Your task to perform on an android device: Open battery settings Image 0: 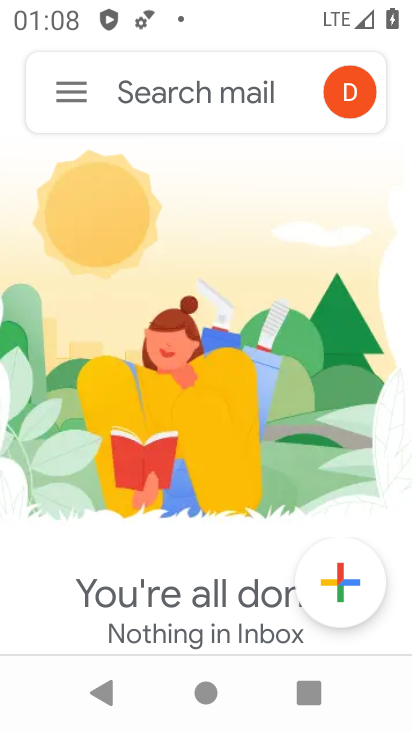
Step 0: press home button
Your task to perform on an android device: Open battery settings Image 1: 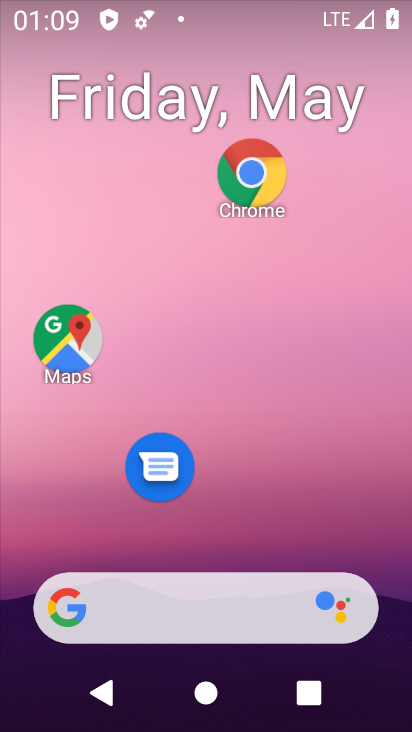
Step 1: drag from (216, 651) to (256, 274)
Your task to perform on an android device: Open battery settings Image 2: 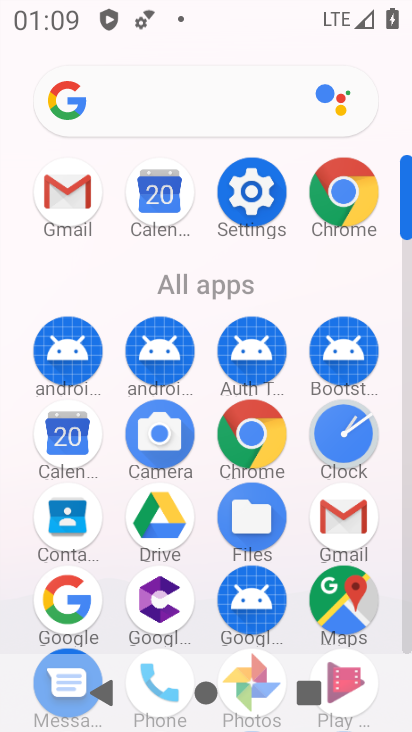
Step 2: click (266, 191)
Your task to perform on an android device: Open battery settings Image 3: 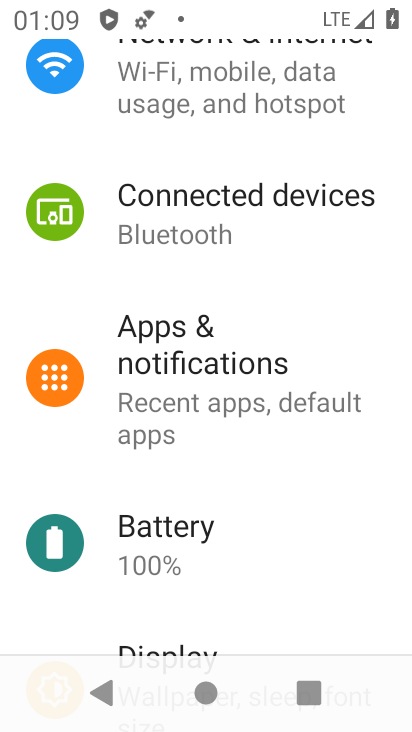
Step 3: click (194, 534)
Your task to perform on an android device: Open battery settings Image 4: 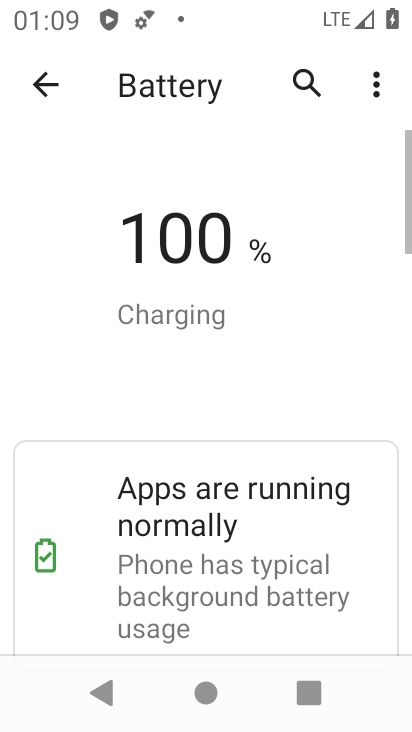
Step 4: task complete